Your task to perform on an android device: turn off priority inbox in the gmail app Image 0: 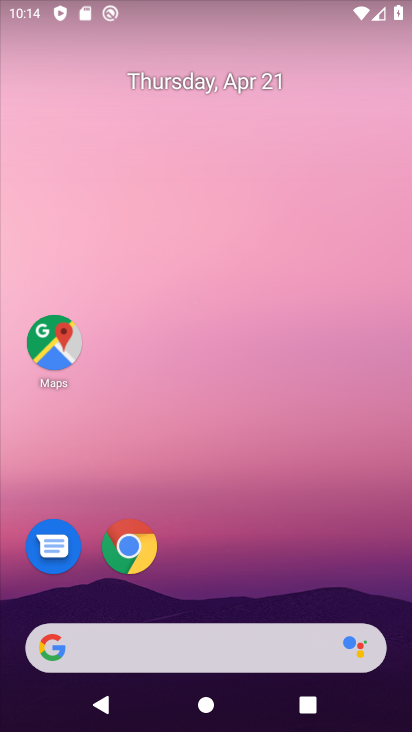
Step 0: drag from (240, 682) to (207, 74)
Your task to perform on an android device: turn off priority inbox in the gmail app Image 1: 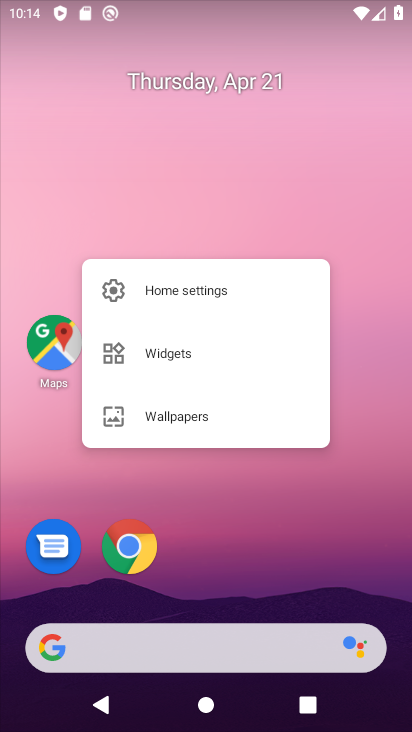
Step 1: click (210, 121)
Your task to perform on an android device: turn off priority inbox in the gmail app Image 2: 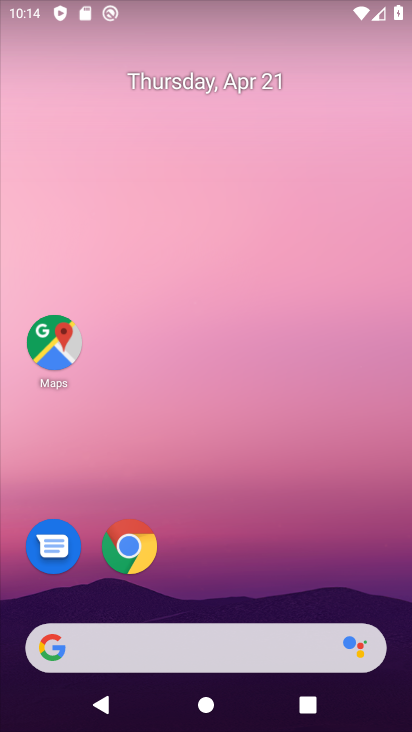
Step 2: drag from (242, 676) to (227, 44)
Your task to perform on an android device: turn off priority inbox in the gmail app Image 3: 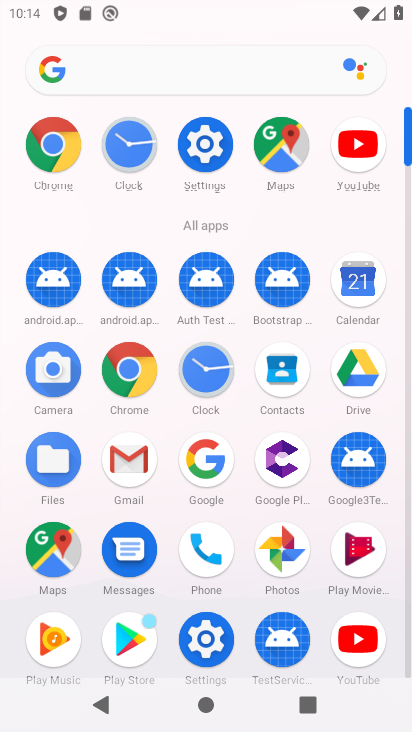
Step 3: click (129, 476)
Your task to perform on an android device: turn off priority inbox in the gmail app Image 4: 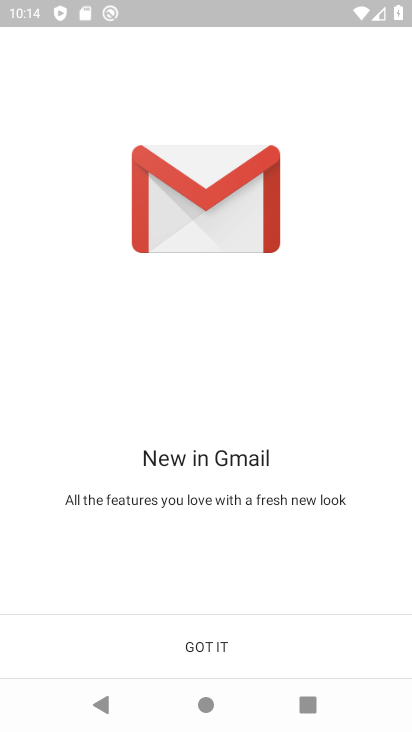
Step 4: click (189, 644)
Your task to perform on an android device: turn off priority inbox in the gmail app Image 5: 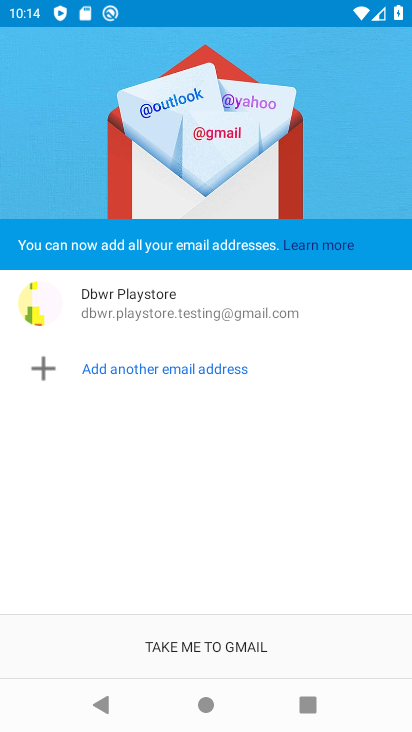
Step 5: click (189, 644)
Your task to perform on an android device: turn off priority inbox in the gmail app Image 6: 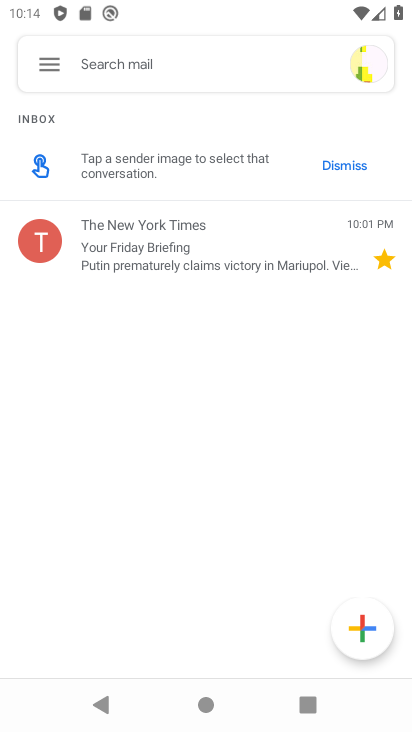
Step 6: click (350, 165)
Your task to perform on an android device: turn off priority inbox in the gmail app Image 7: 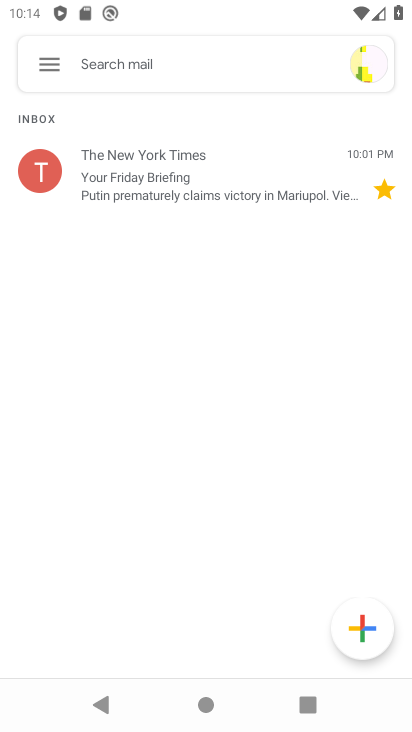
Step 7: click (58, 69)
Your task to perform on an android device: turn off priority inbox in the gmail app Image 8: 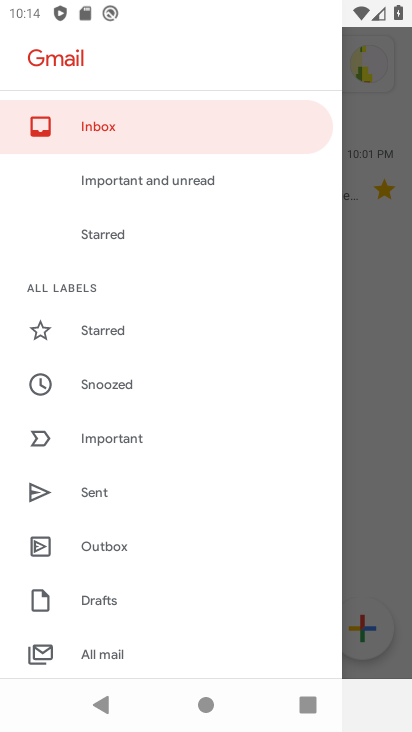
Step 8: drag from (115, 639) to (131, 240)
Your task to perform on an android device: turn off priority inbox in the gmail app Image 9: 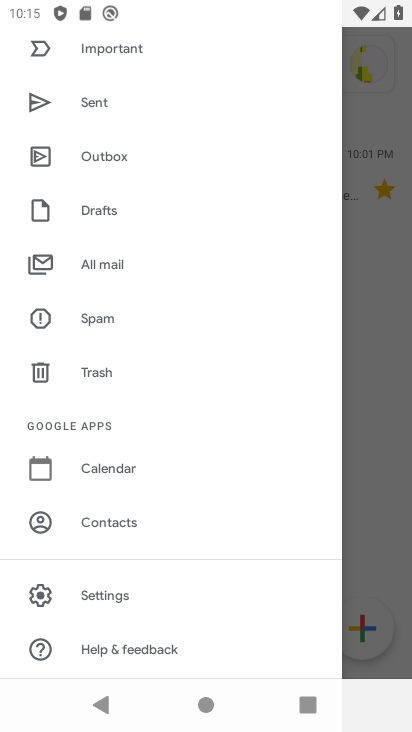
Step 9: click (87, 596)
Your task to perform on an android device: turn off priority inbox in the gmail app Image 10: 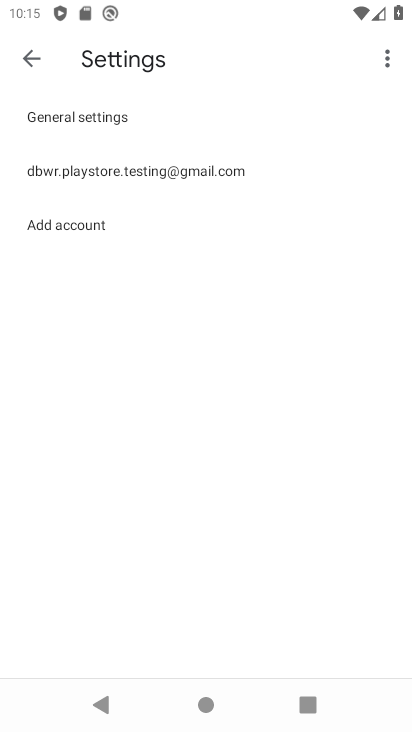
Step 10: click (89, 155)
Your task to perform on an android device: turn off priority inbox in the gmail app Image 11: 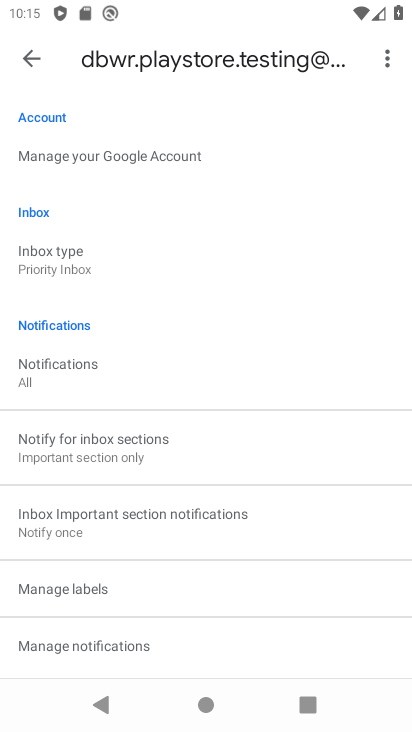
Step 11: click (77, 250)
Your task to perform on an android device: turn off priority inbox in the gmail app Image 12: 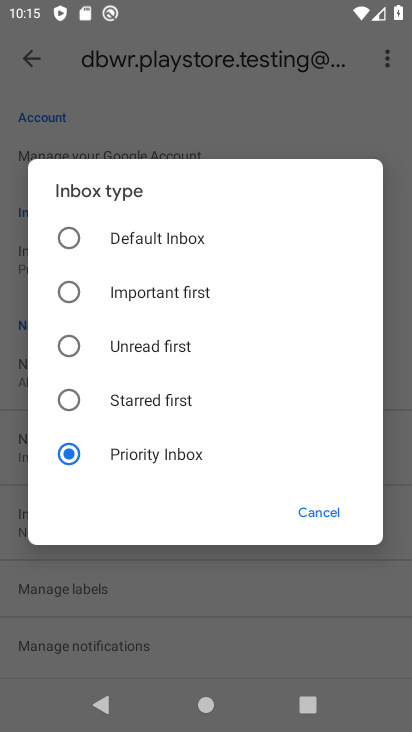
Step 12: click (103, 236)
Your task to perform on an android device: turn off priority inbox in the gmail app Image 13: 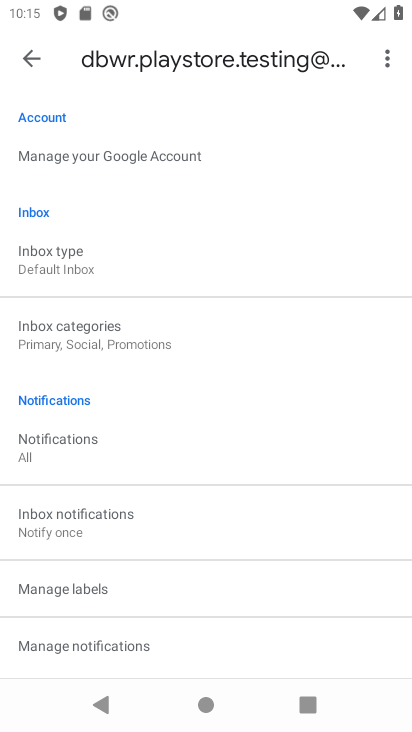
Step 13: task complete